Your task to perform on an android device: turn off improve location accuracy Image 0: 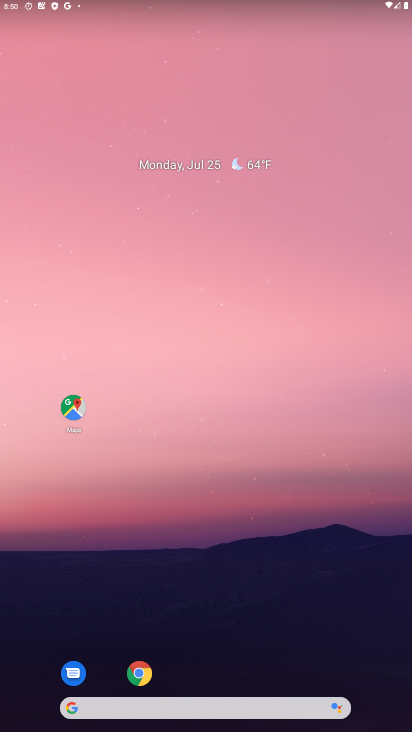
Step 0: drag from (210, 654) to (266, 72)
Your task to perform on an android device: turn off improve location accuracy Image 1: 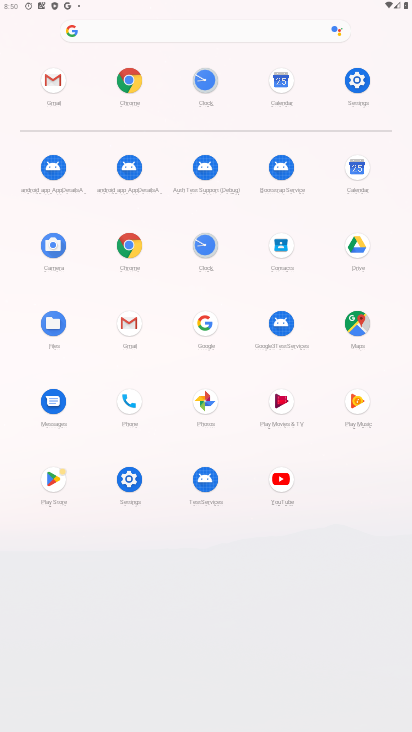
Step 1: click (349, 74)
Your task to perform on an android device: turn off improve location accuracy Image 2: 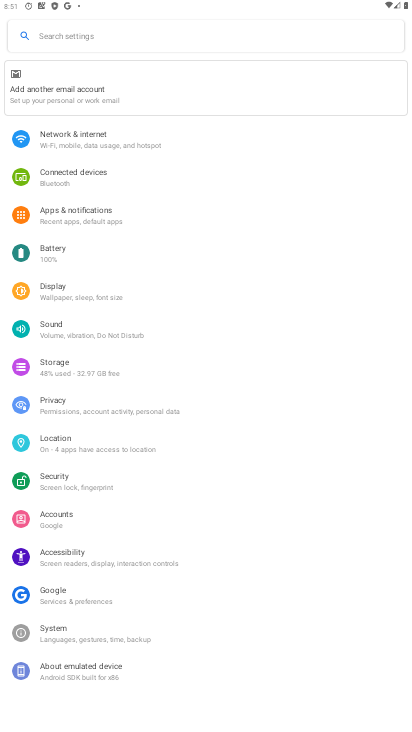
Step 2: click (80, 449)
Your task to perform on an android device: turn off improve location accuracy Image 3: 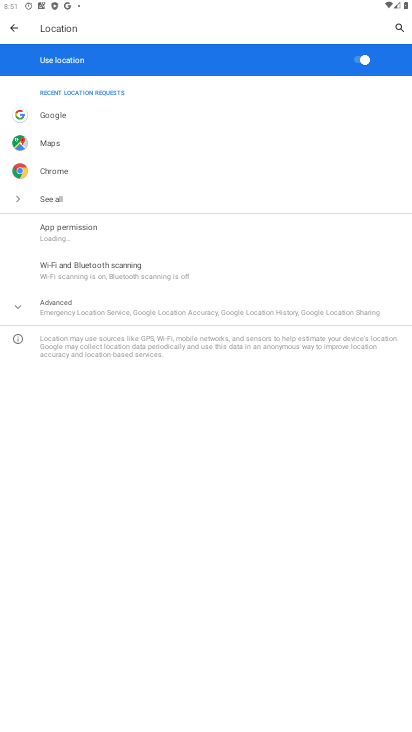
Step 3: click (98, 308)
Your task to perform on an android device: turn off improve location accuracy Image 4: 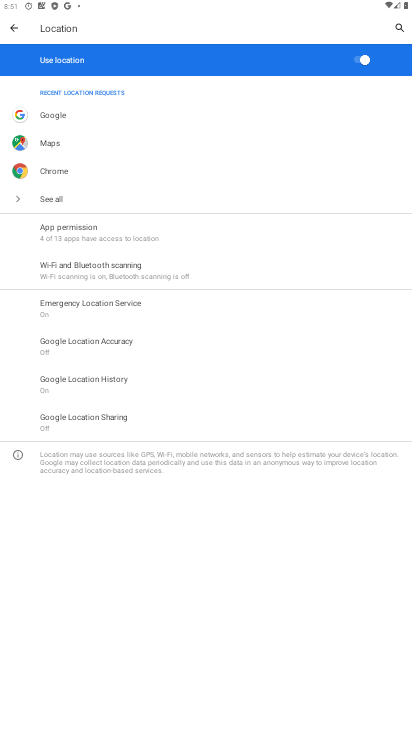
Step 4: click (92, 342)
Your task to perform on an android device: turn off improve location accuracy Image 5: 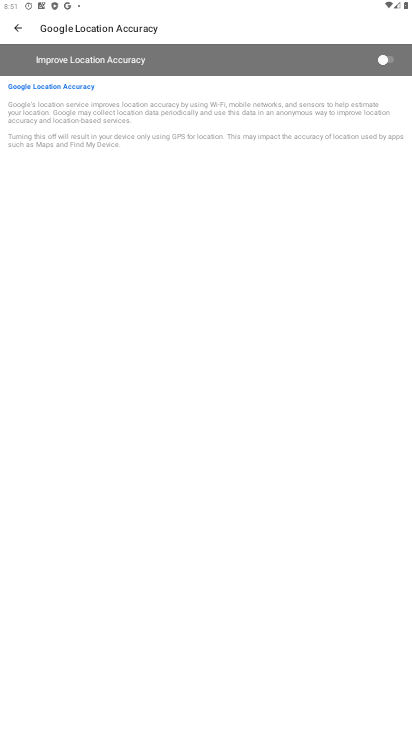
Step 5: click (352, 55)
Your task to perform on an android device: turn off improve location accuracy Image 6: 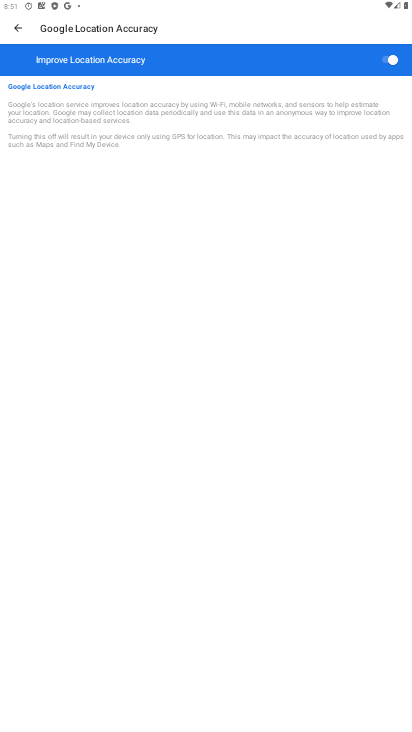
Step 6: task complete